Your task to perform on an android device: show emergency info Image 0: 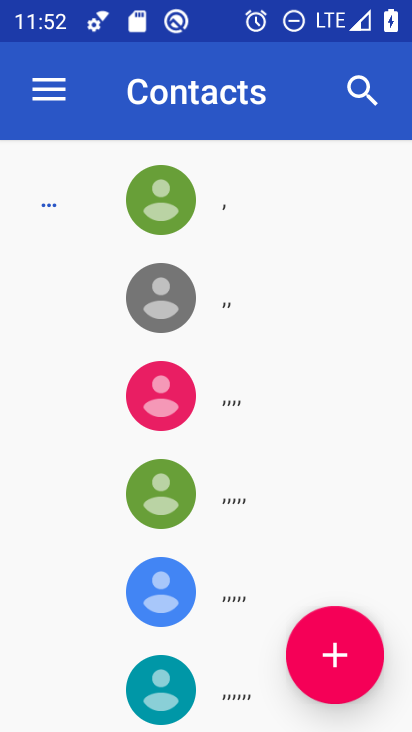
Step 0: press home button
Your task to perform on an android device: show emergency info Image 1: 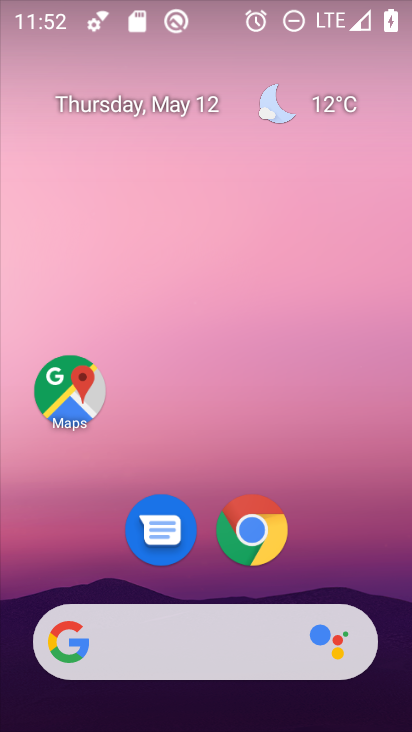
Step 1: drag from (186, 616) to (285, 80)
Your task to perform on an android device: show emergency info Image 2: 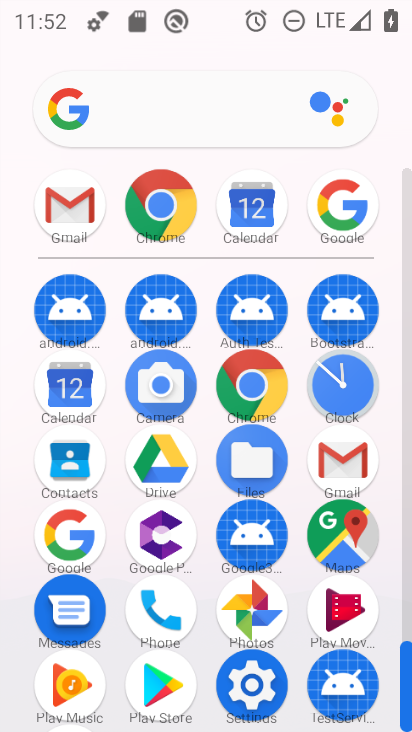
Step 2: click (245, 691)
Your task to perform on an android device: show emergency info Image 3: 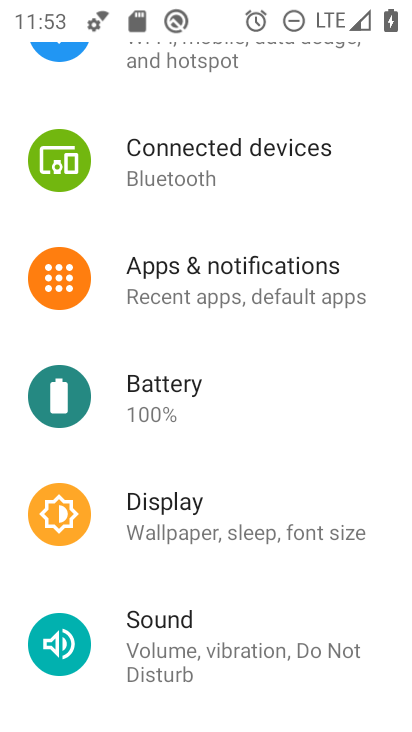
Step 3: drag from (219, 631) to (318, 38)
Your task to perform on an android device: show emergency info Image 4: 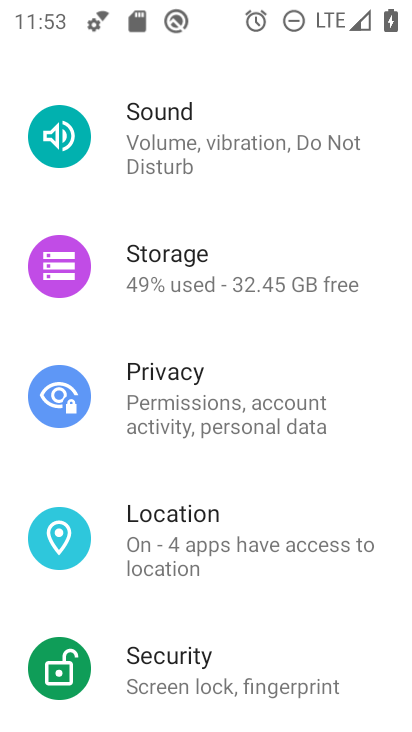
Step 4: drag from (202, 596) to (355, 39)
Your task to perform on an android device: show emergency info Image 5: 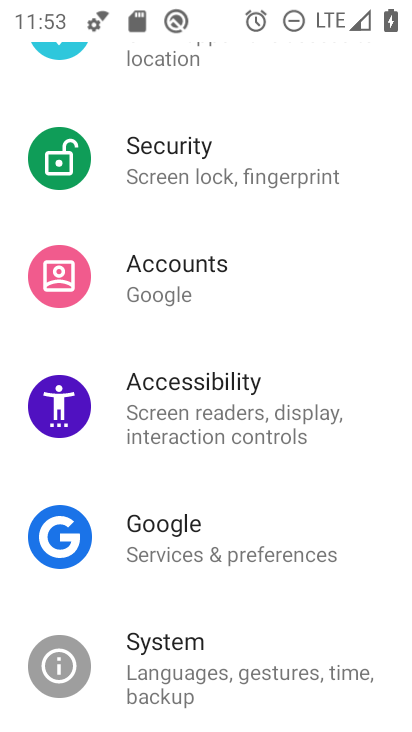
Step 5: drag from (142, 677) to (305, 84)
Your task to perform on an android device: show emergency info Image 6: 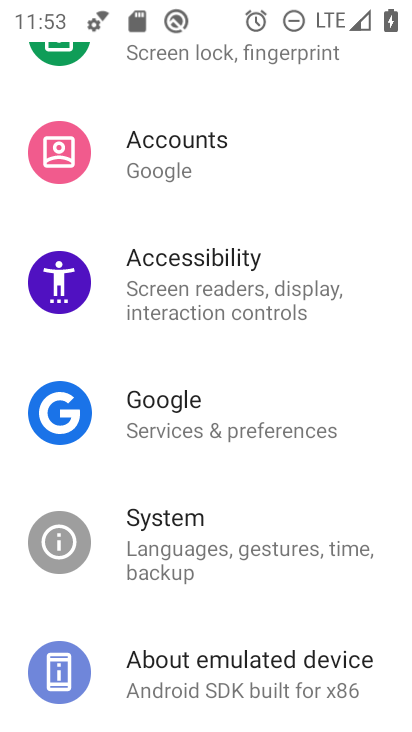
Step 6: click (212, 676)
Your task to perform on an android device: show emergency info Image 7: 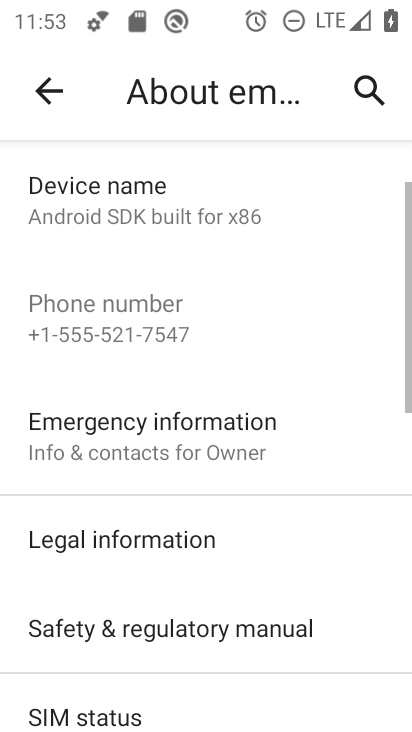
Step 7: click (145, 442)
Your task to perform on an android device: show emergency info Image 8: 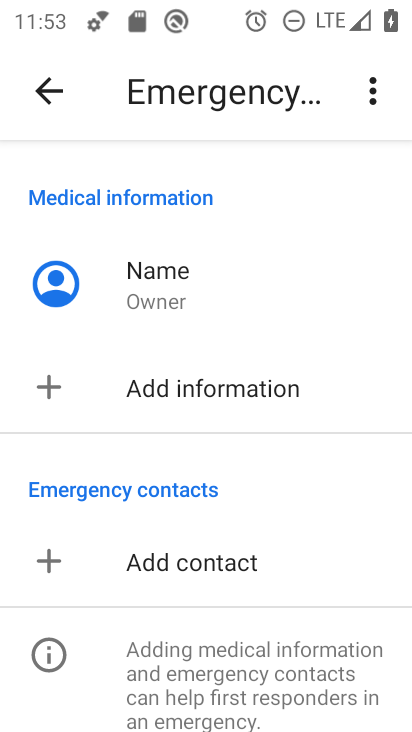
Step 8: task complete